Your task to perform on an android device: open chrome and create a bookmark for the current page Image 0: 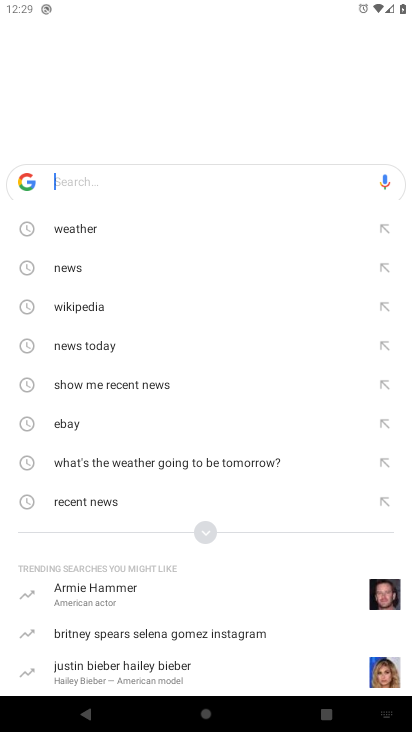
Step 0: press home button
Your task to perform on an android device: open chrome and create a bookmark for the current page Image 1: 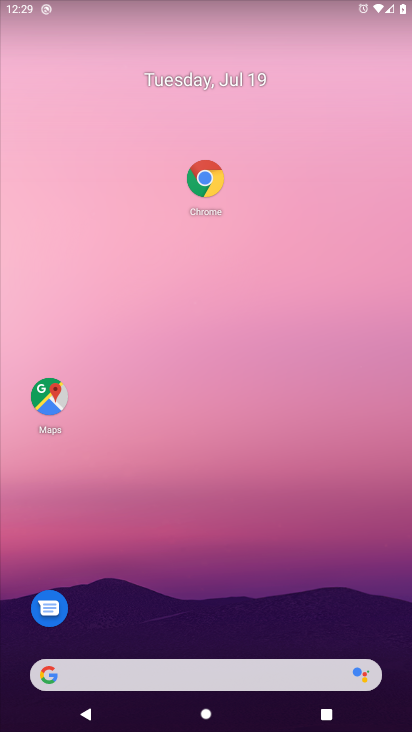
Step 1: click (208, 202)
Your task to perform on an android device: open chrome and create a bookmark for the current page Image 2: 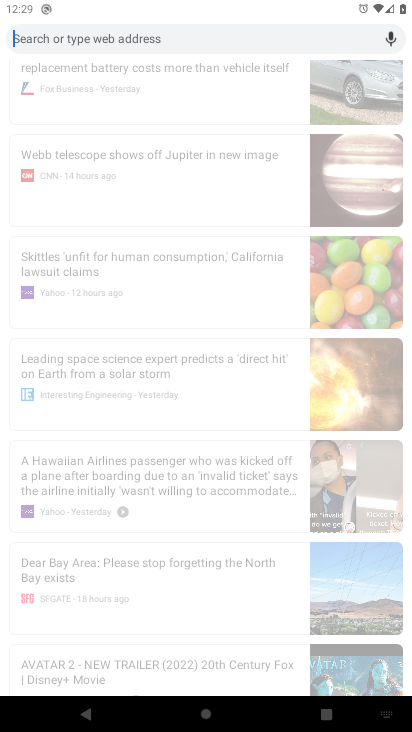
Step 2: click (86, 55)
Your task to perform on an android device: open chrome and create a bookmark for the current page Image 3: 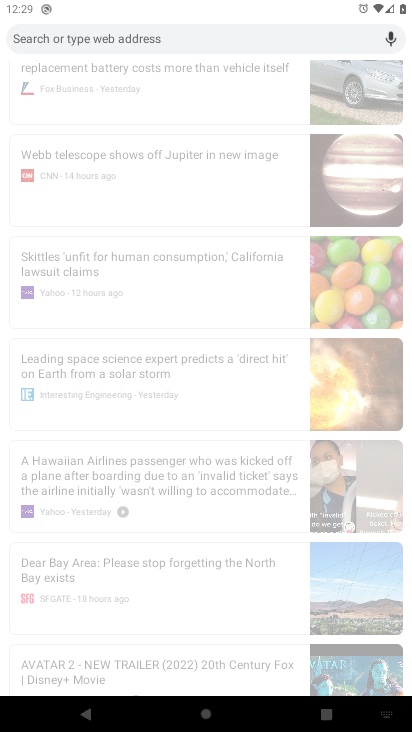
Step 3: click (92, 171)
Your task to perform on an android device: open chrome and create a bookmark for the current page Image 4: 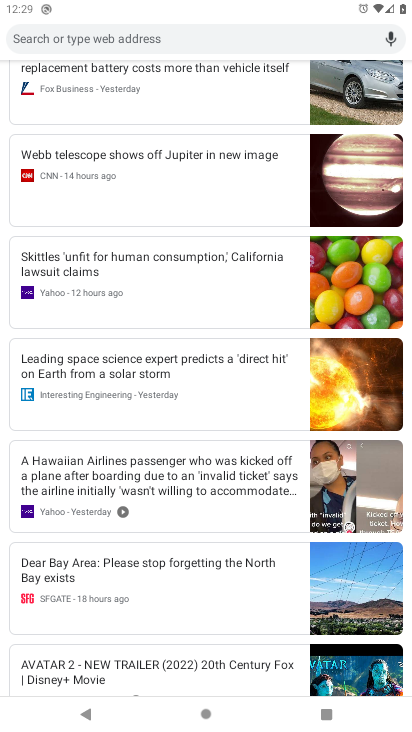
Step 4: click (367, 43)
Your task to perform on an android device: open chrome and create a bookmark for the current page Image 5: 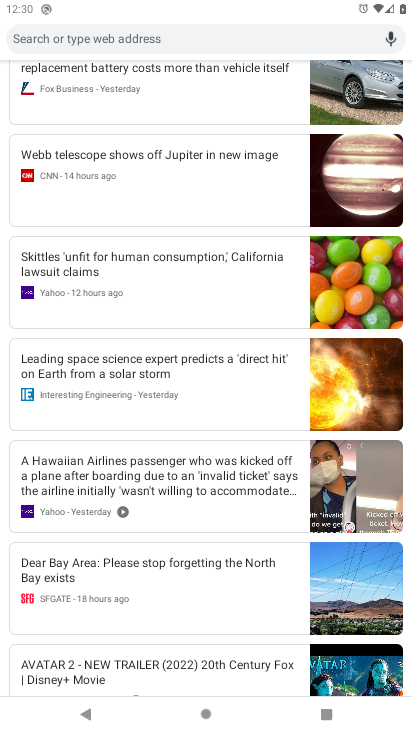
Step 5: task complete